Your task to perform on an android device: Go to settings Image 0: 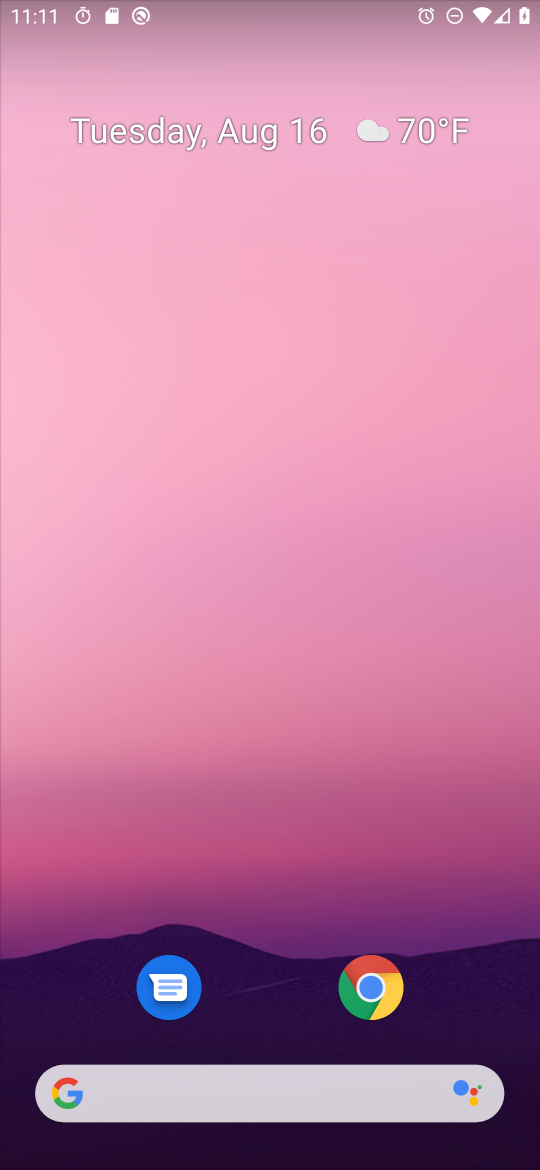
Step 0: drag from (28, 1129) to (300, 348)
Your task to perform on an android device: Go to settings Image 1: 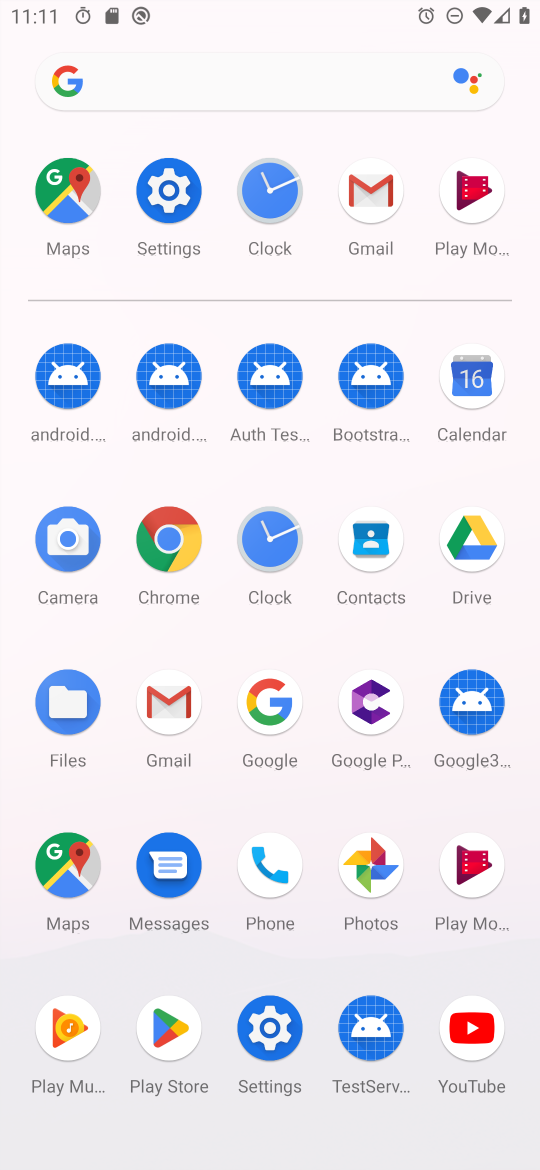
Step 1: click (157, 180)
Your task to perform on an android device: Go to settings Image 2: 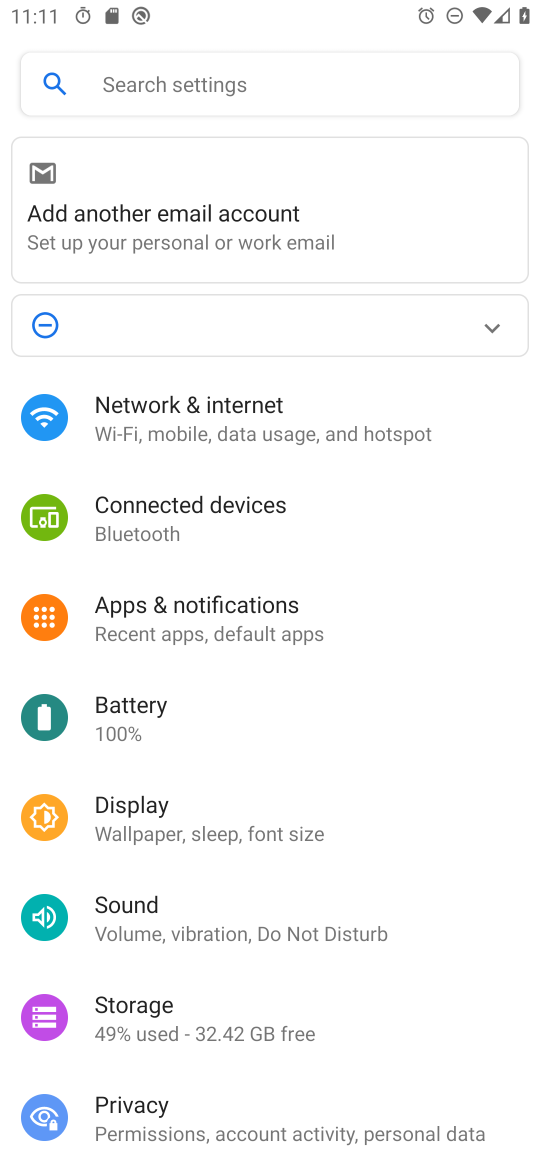
Step 2: task complete